Your task to perform on an android device: Open Google Maps and go to "Timeline" Image 0: 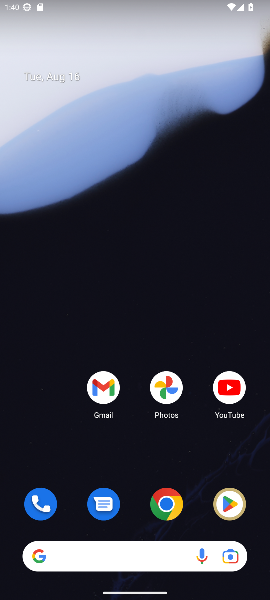
Step 0: drag from (140, 516) to (177, 101)
Your task to perform on an android device: Open Google Maps and go to "Timeline" Image 1: 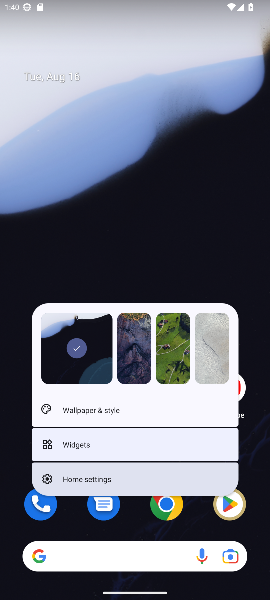
Step 1: click (116, 210)
Your task to perform on an android device: Open Google Maps and go to "Timeline" Image 2: 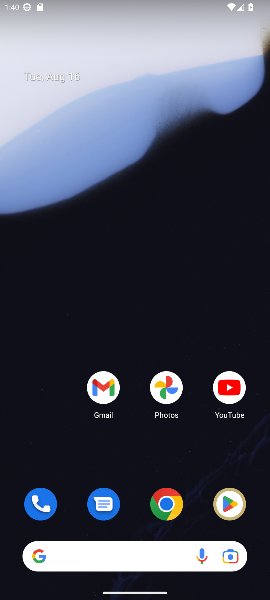
Step 2: drag from (143, 466) to (99, 66)
Your task to perform on an android device: Open Google Maps and go to "Timeline" Image 3: 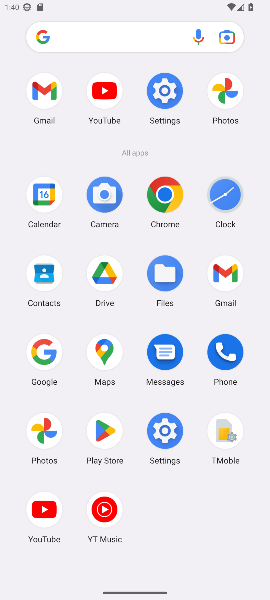
Step 3: click (105, 348)
Your task to perform on an android device: Open Google Maps and go to "Timeline" Image 4: 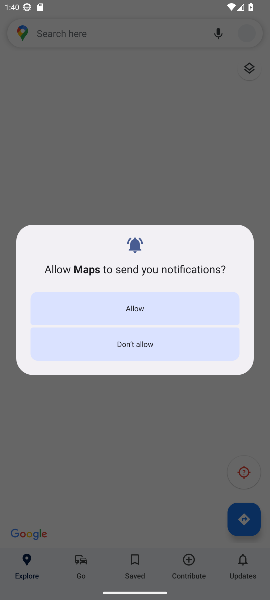
Step 4: click (140, 307)
Your task to perform on an android device: Open Google Maps and go to "Timeline" Image 5: 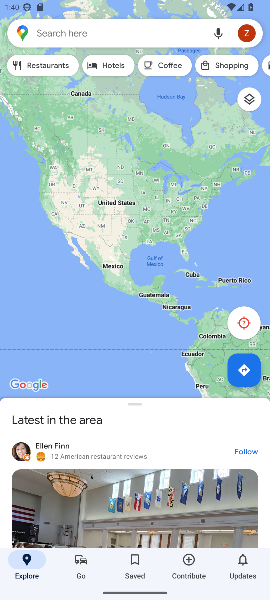
Step 5: click (64, 32)
Your task to perform on an android device: Open Google Maps and go to "Timeline" Image 6: 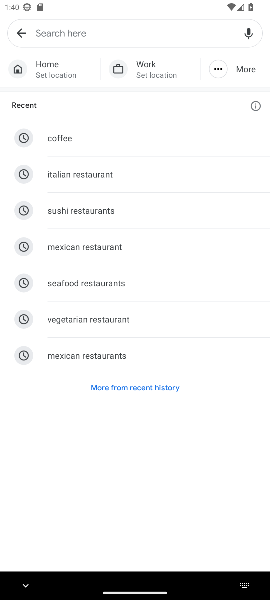
Step 6: click (19, 28)
Your task to perform on an android device: Open Google Maps and go to "Timeline" Image 7: 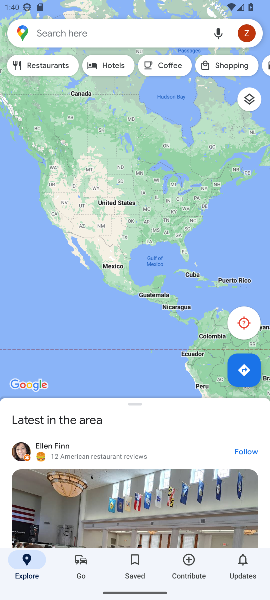
Step 7: click (246, 34)
Your task to perform on an android device: Open Google Maps and go to "Timeline" Image 8: 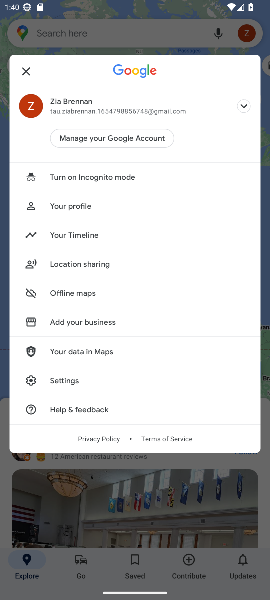
Step 8: click (81, 233)
Your task to perform on an android device: Open Google Maps and go to "Timeline" Image 9: 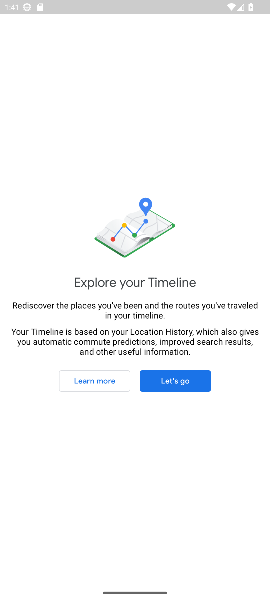
Step 9: click (173, 381)
Your task to perform on an android device: Open Google Maps and go to "Timeline" Image 10: 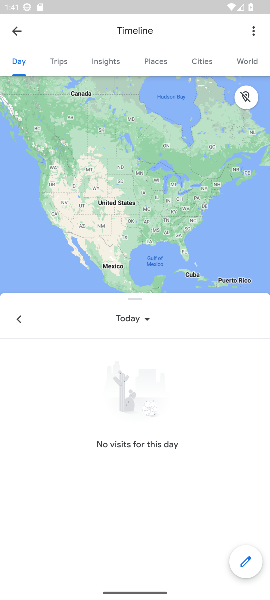
Step 10: task complete